Your task to perform on an android device: turn off data saver in the chrome app Image 0: 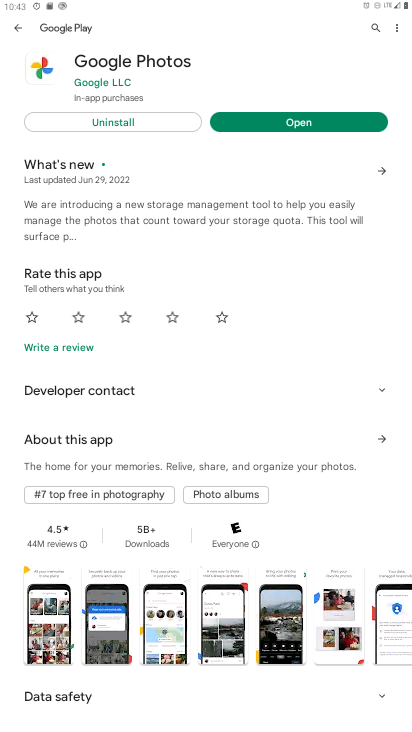
Step 0: press home button
Your task to perform on an android device: turn off data saver in the chrome app Image 1: 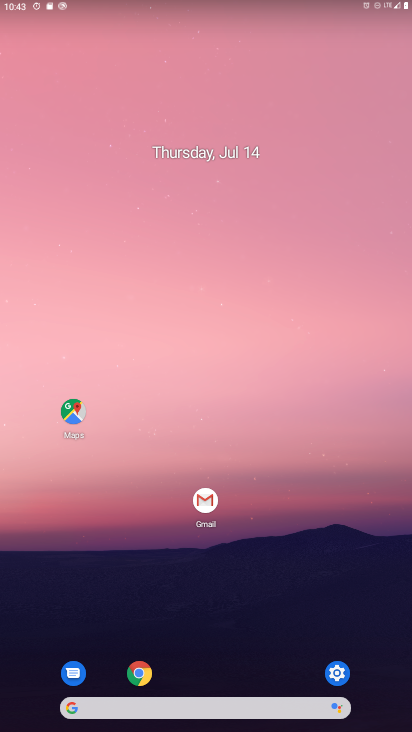
Step 1: click (140, 657)
Your task to perform on an android device: turn off data saver in the chrome app Image 2: 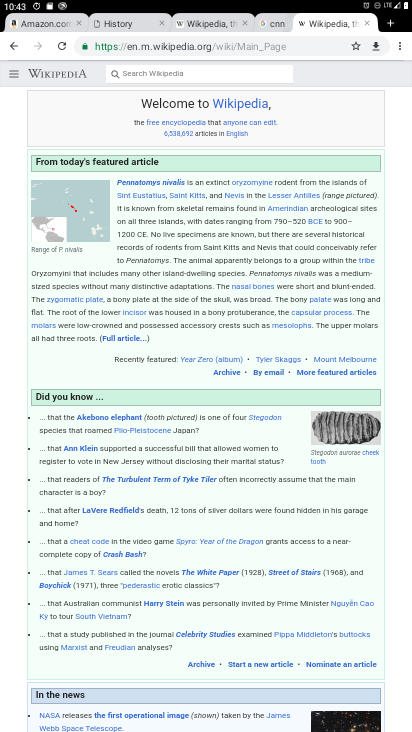
Step 2: click (391, 47)
Your task to perform on an android device: turn off data saver in the chrome app Image 3: 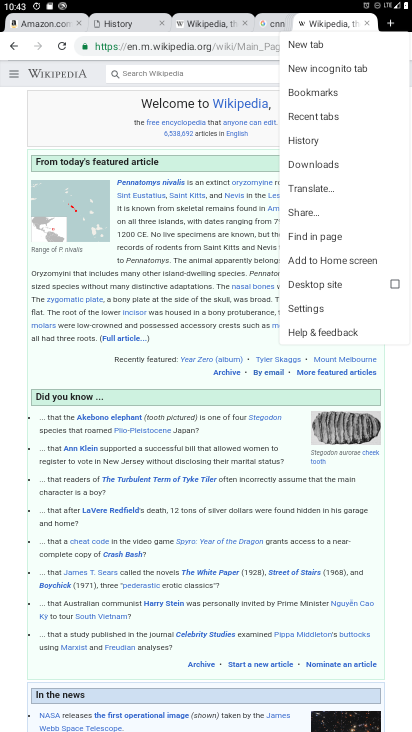
Step 3: click (299, 310)
Your task to perform on an android device: turn off data saver in the chrome app Image 4: 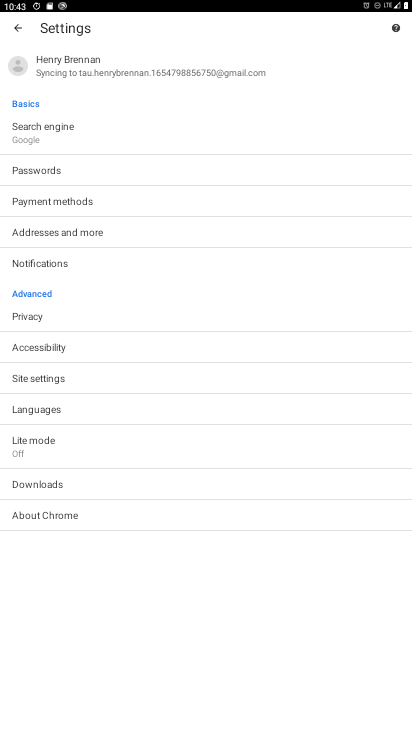
Step 4: click (48, 442)
Your task to perform on an android device: turn off data saver in the chrome app Image 5: 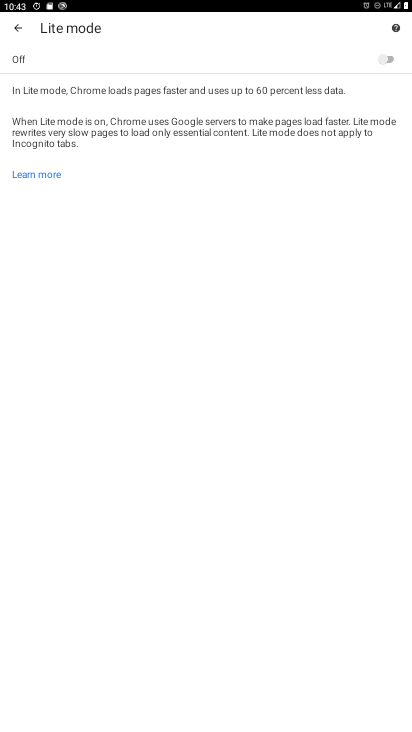
Step 5: click (378, 54)
Your task to perform on an android device: turn off data saver in the chrome app Image 6: 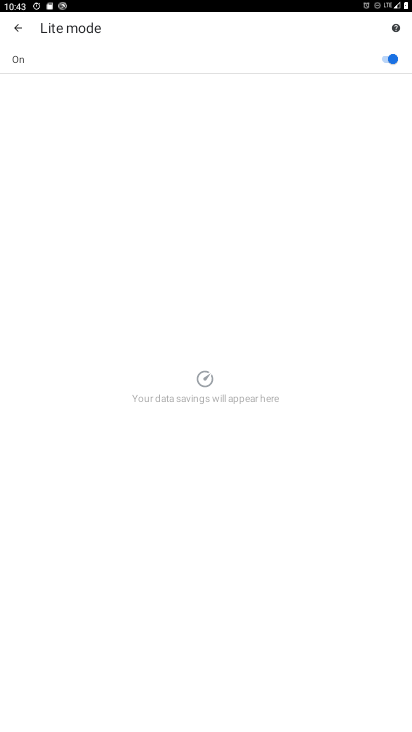
Step 6: click (378, 54)
Your task to perform on an android device: turn off data saver in the chrome app Image 7: 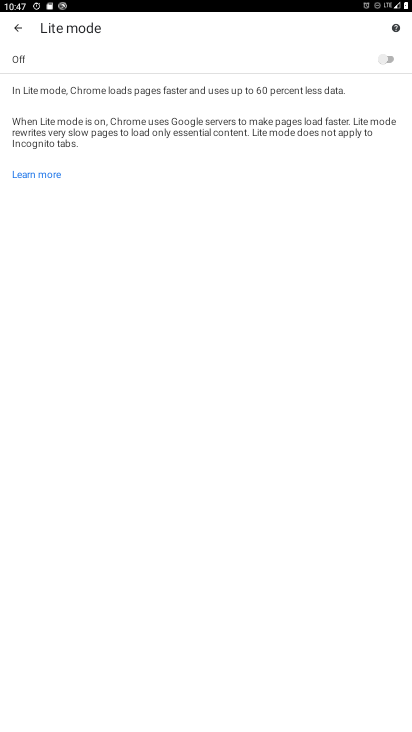
Step 7: task complete